Your task to perform on an android device: turn off location history Image 0: 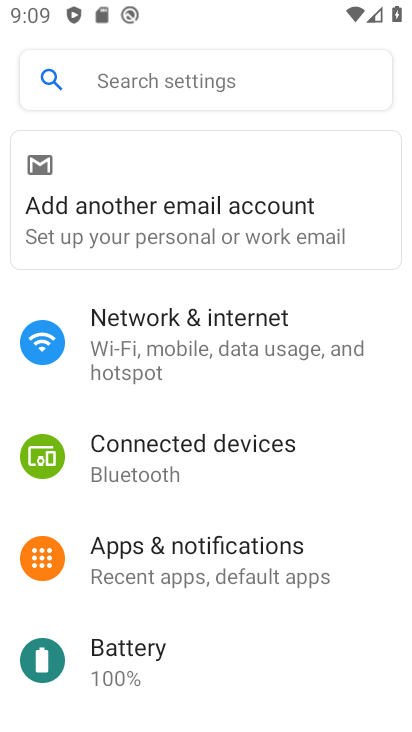
Step 0: drag from (245, 582) to (200, 131)
Your task to perform on an android device: turn off location history Image 1: 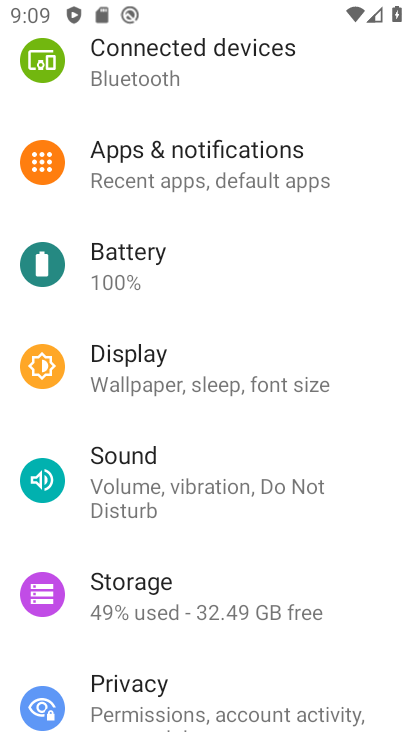
Step 1: drag from (278, 605) to (265, 210)
Your task to perform on an android device: turn off location history Image 2: 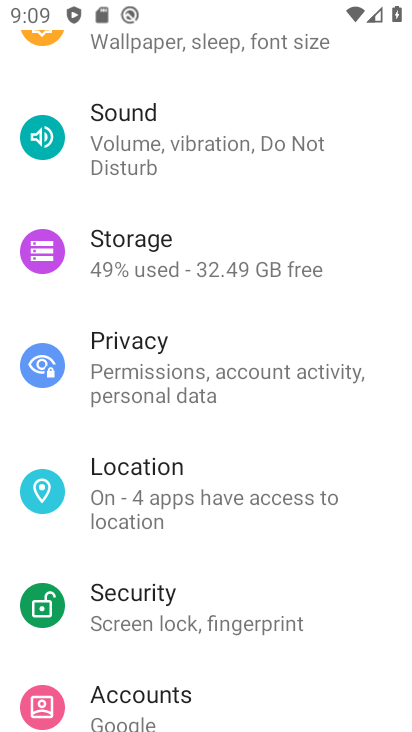
Step 2: click (191, 512)
Your task to perform on an android device: turn off location history Image 3: 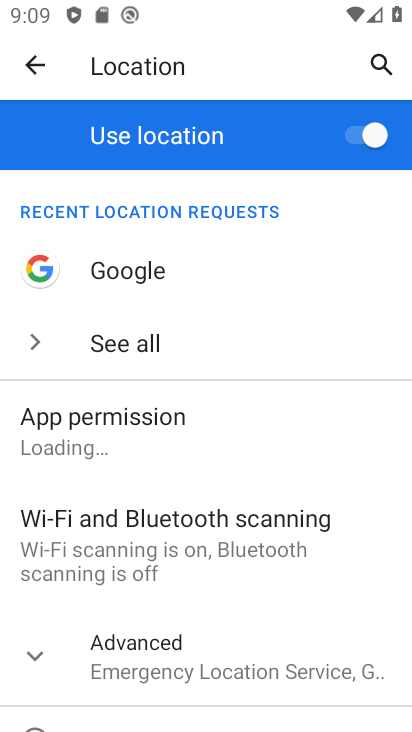
Step 3: drag from (236, 607) to (283, 243)
Your task to perform on an android device: turn off location history Image 4: 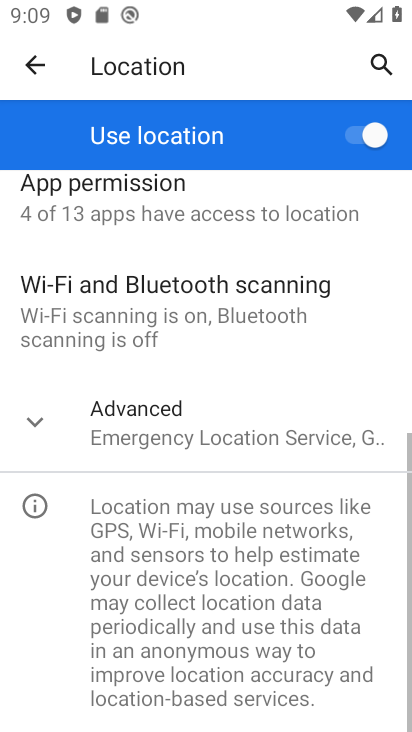
Step 4: drag from (236, 640) to (204, 347)
Your task to perform on an android device: turn off location history Image 5: 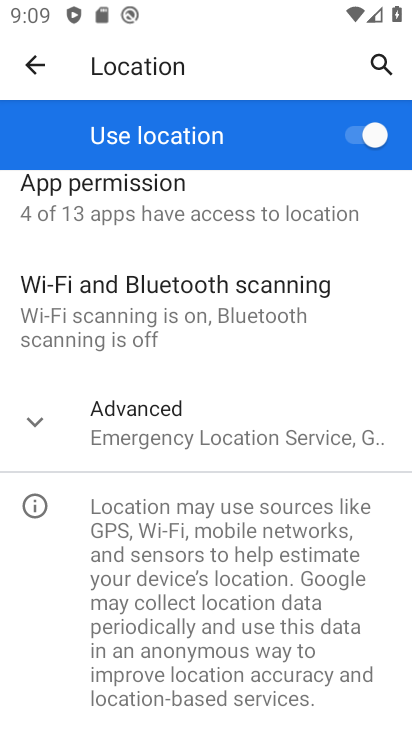
Step 5: click (214, 407)
Your task to perform on an android device: turn off location history Image 6: 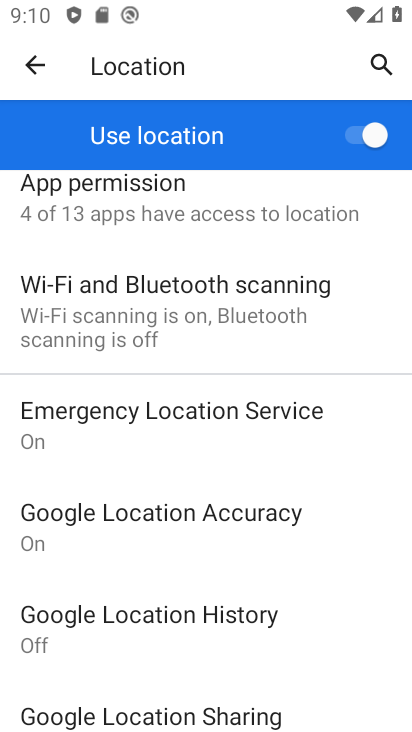
Step 6: drag from (250, 641) to (238, 447)
Your task to perform on an android device: turn off location history Image 7: 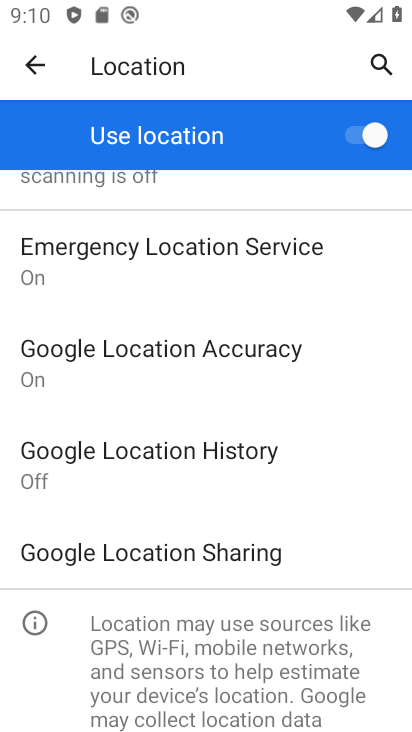
Step 7: click (238, 447)
Your task to perform on an android device: turn off location history Image 8: 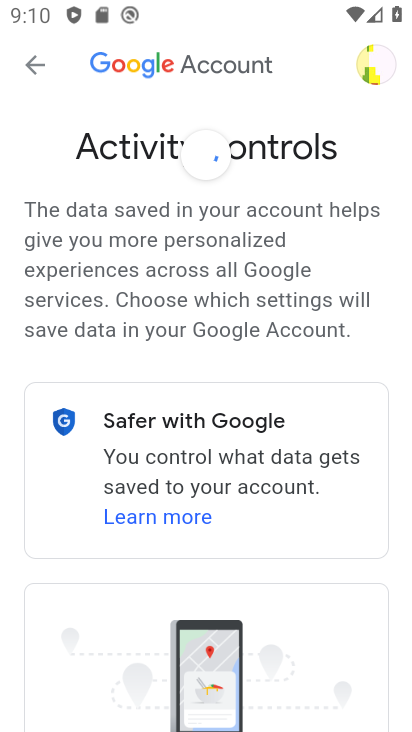
Step 8: drag from (347, 560) to (321, 171)
Your task to perform on an android device: turn off location history Image 9: 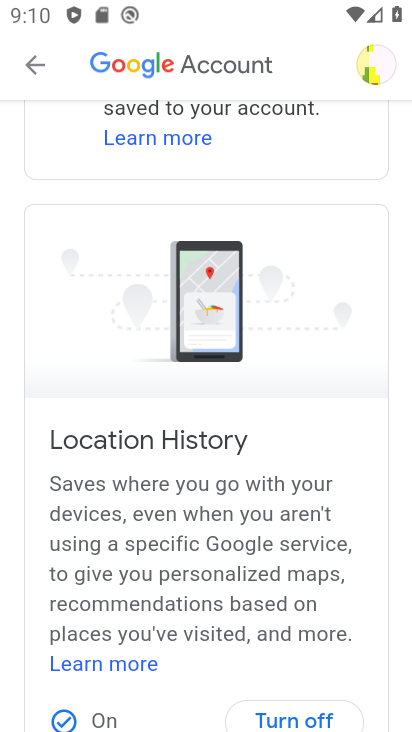
Step 9: drag from (322, 578) to (302, 178)
Your task to perform on an android device: turn off location history Image 10: 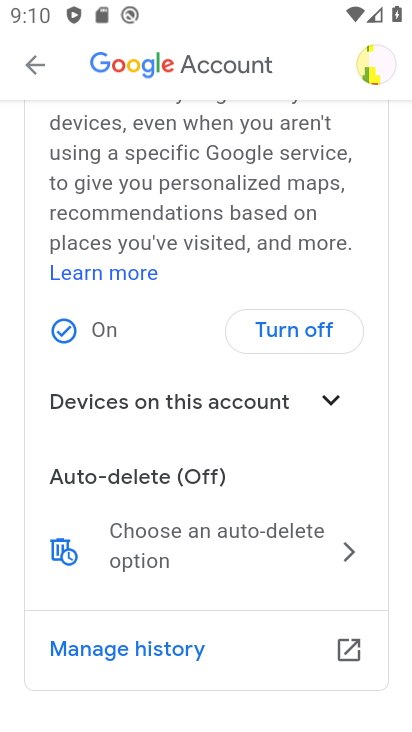
Step 10: click (302, 331)
Your task to perform on an android device: turn off location history Image 11: 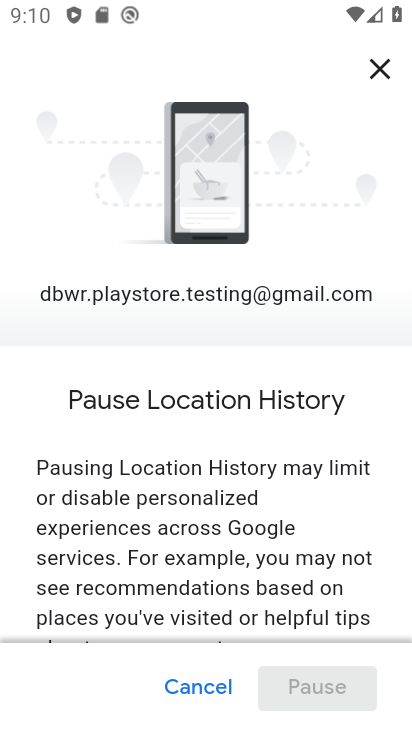
Step 11: drag from (348, 611) to (338, 217)
Your task to perform on an android device: turn off location history Image 12: 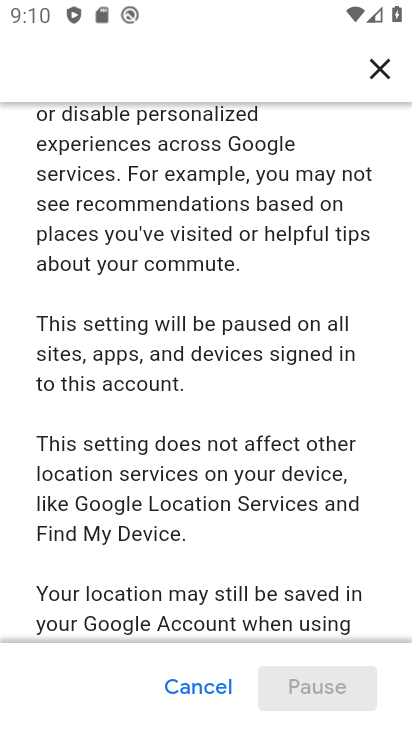
Step 12: drag from (284, 608) to (325, 208)
Your task to perform on an android device: turn off location history Image 13: 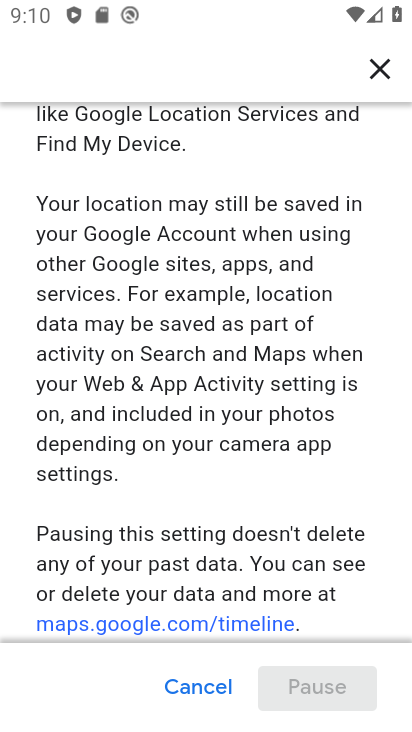
Step 13: drag from (359, 607) to (363, 181)
Your task to perform on an android device: turn off location history Image 14: 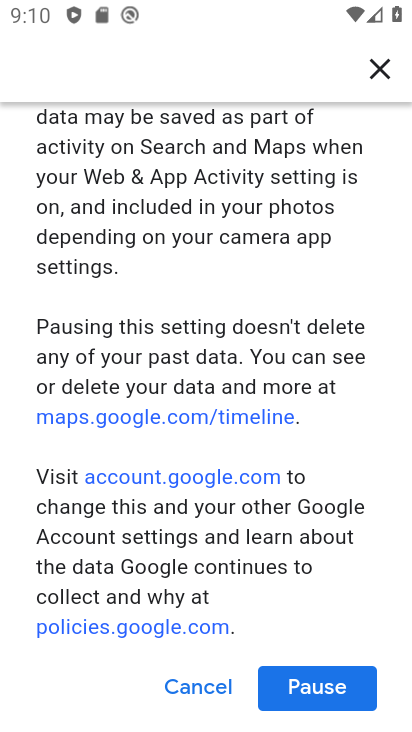
Step 14: drag from (293, 589) to (282, 298)
Your task to perform on an android device: turn off location history Image 15: 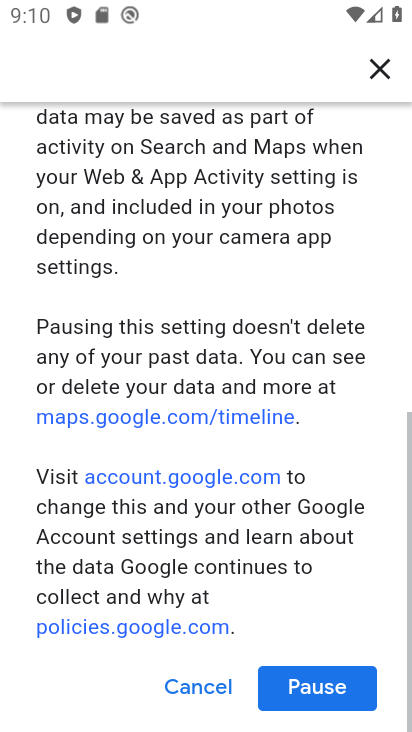
Step 15: click (362, 698)
Your task to perform on an android device: turn off location history Image 16: 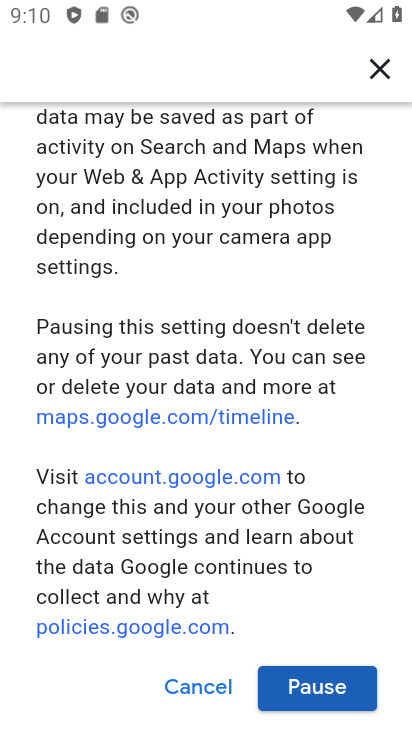
Step 16: click (362, 696)
Your task to perform on an android device: turn off location history Image 17: 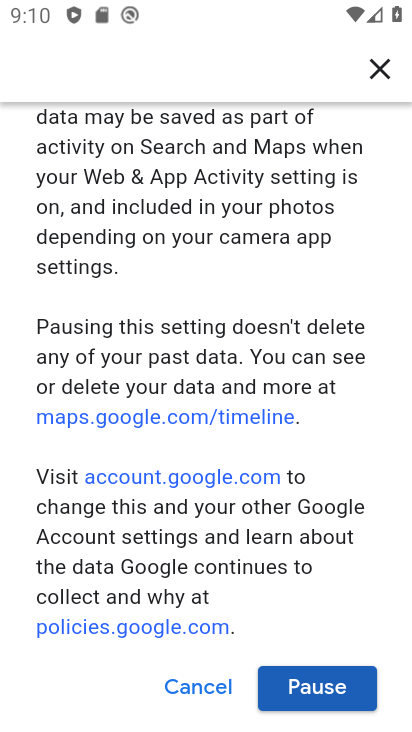
Step 17: click (324, 685)
Your task to perform on an android device: turn off location history Image 18: 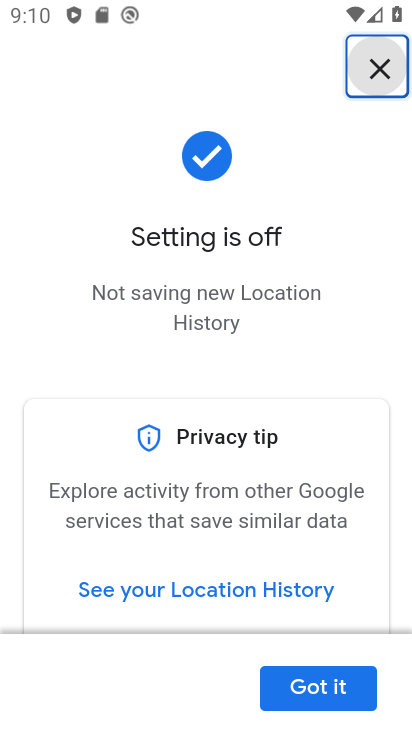
Step 18: click (324, 685)
Your task to perform on an android device: turn off location history Image 19: 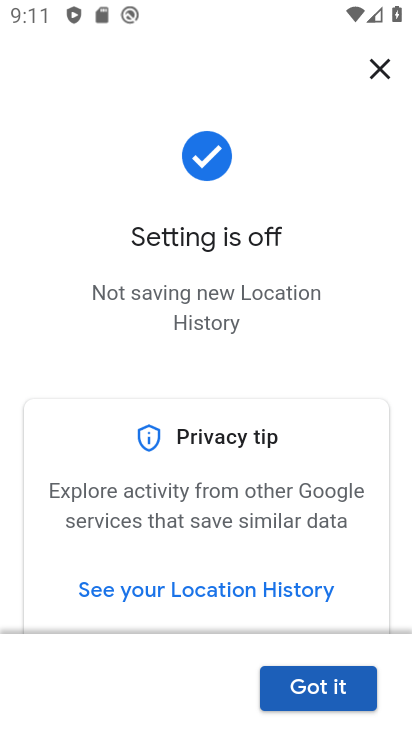
Step 19: task complete